Your task to perform on an android device: Go to display settings Image 0: 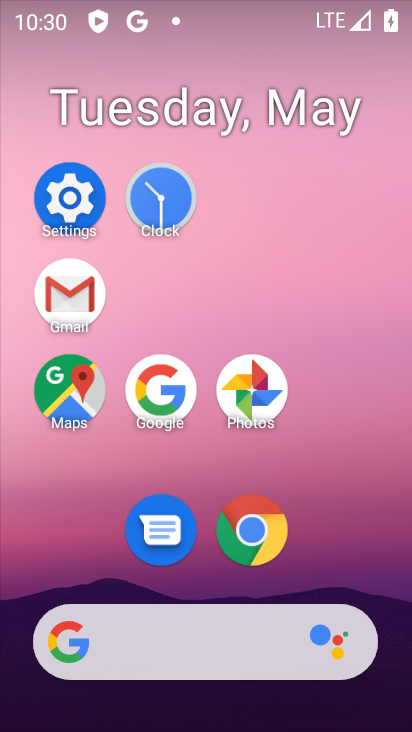
Step 0: click (70, 188)
Your task to perform on an android device: Go to display settings Image 1: 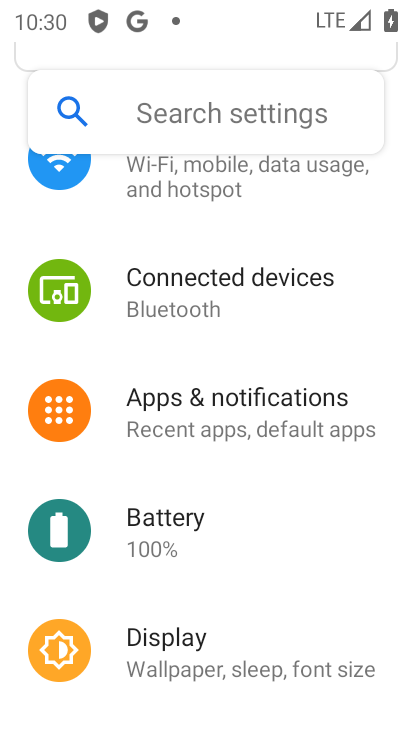
Step 1: click (265, 659)
Your task to perform on an android device: Go to display settings Image 2: 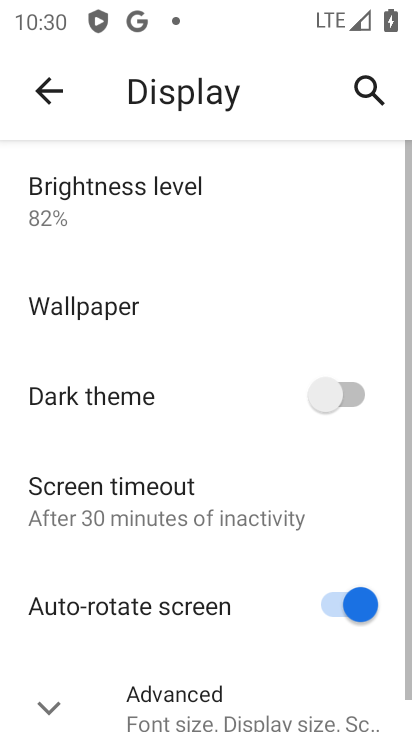
Step 2: task complete